Your task to perform on an android device: Open Yahoo.com Image 0: 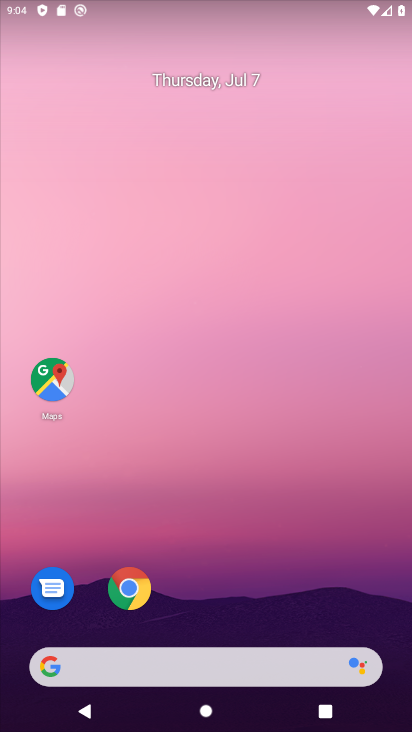
Step 0: click (131, 595)
Your task to perform on an android device: Open Yahoo.com Image 1: 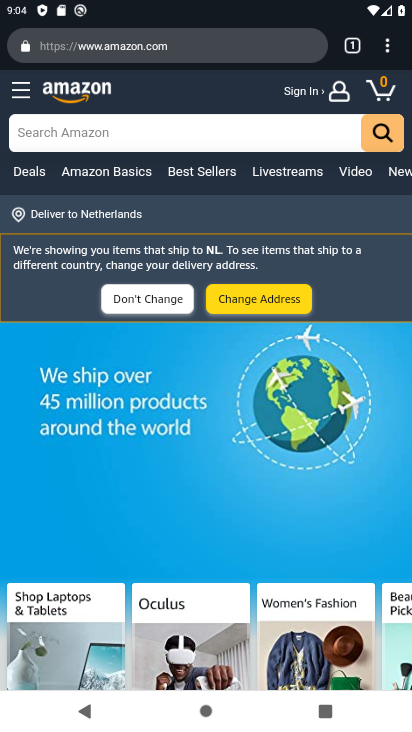
Step 1: click (383, 45)
Your task to perform on an android device: Open Yahoo.com Image 2: 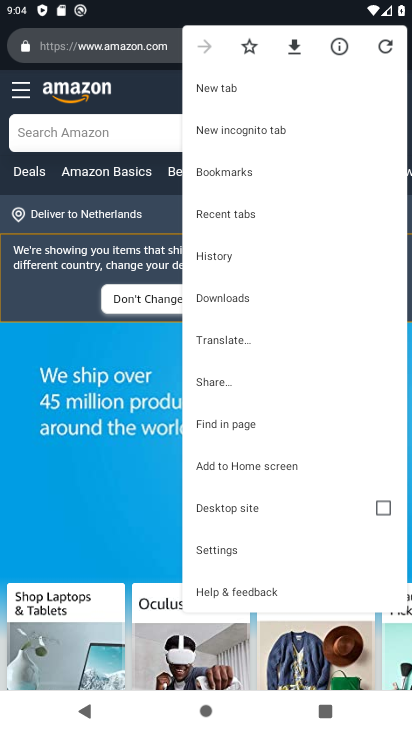
Step 2: click (214, 96)
Your task to perform on an android device: Open Yahoo.com Image 3: 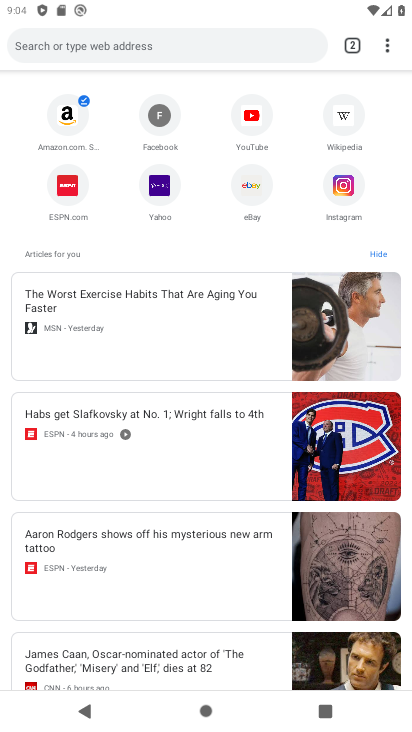
Step 3: click (152, 193)
Your task to perform on an android device: Open Yahoo.com Image 4: 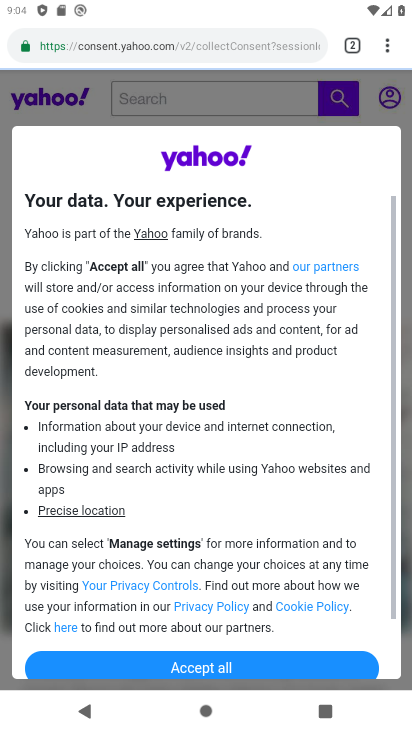
Step 4: task complete